Your task to perform on an android device: Go to Google Image 0: 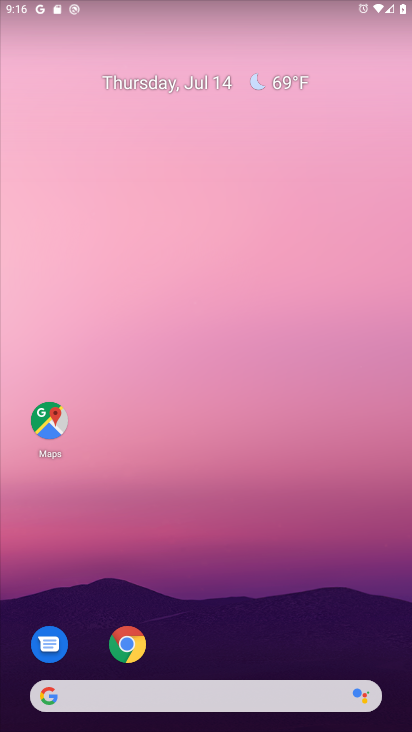
Step 0: click (68, 701)
Your task to perform on an android device: Go to Google Image 1: 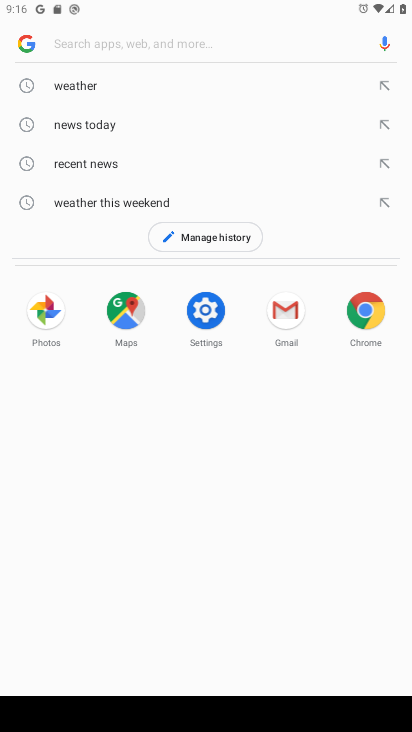
Step 1: task complete